Your task to perform on an android device: Is it going to rain today? Image 0: 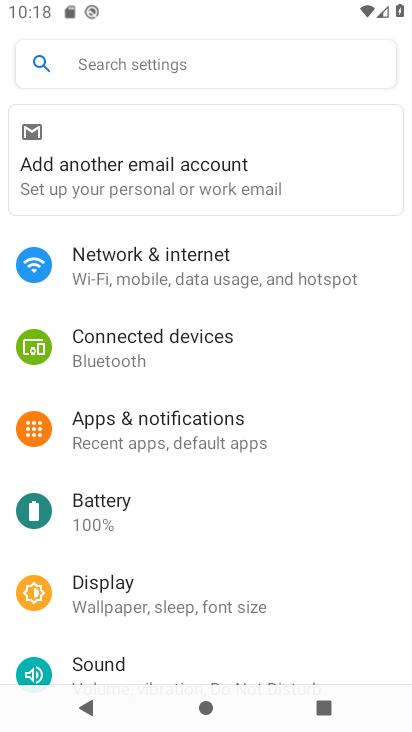
Step 0: press home button
Your task to perform on an android device: Is it going to rain today? Image 1: 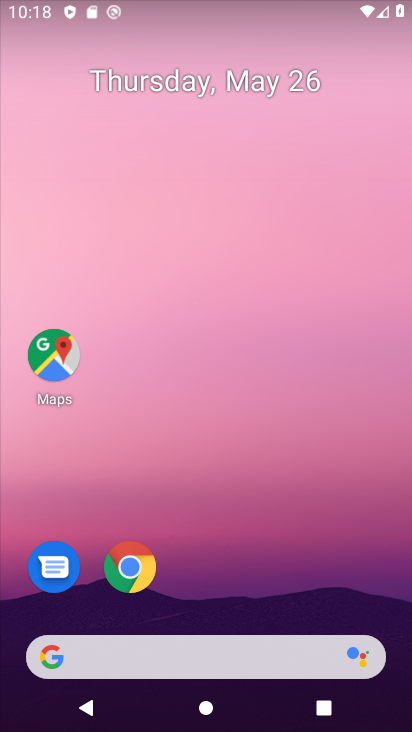
Step 1: drag from (41, 191) to (409, 221)
Your task to perform on an android device: Is it going to rain today? Image 2: 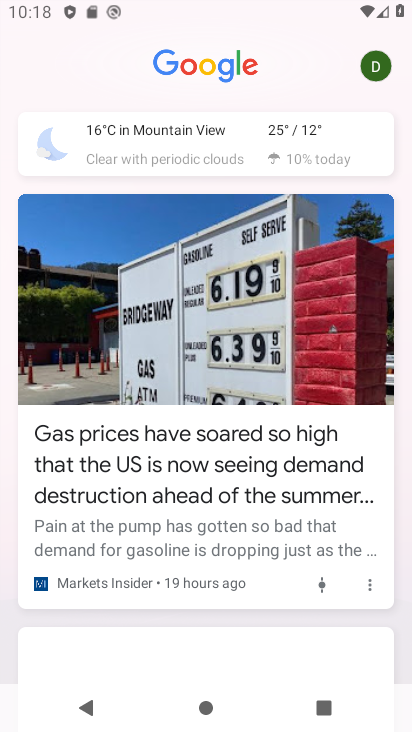
Step 2: press back button
Your task to perform on an android device: Is it going to rain today? Image 3: 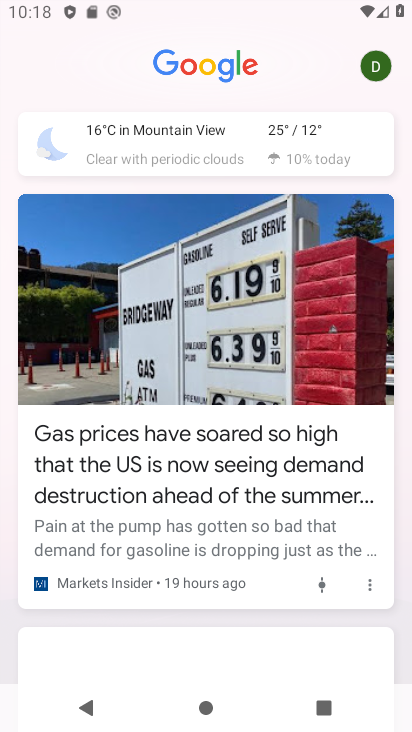
Step 3: click (238, 142)
Your task to perform on an android device: Is it going to rain today? Image 4: 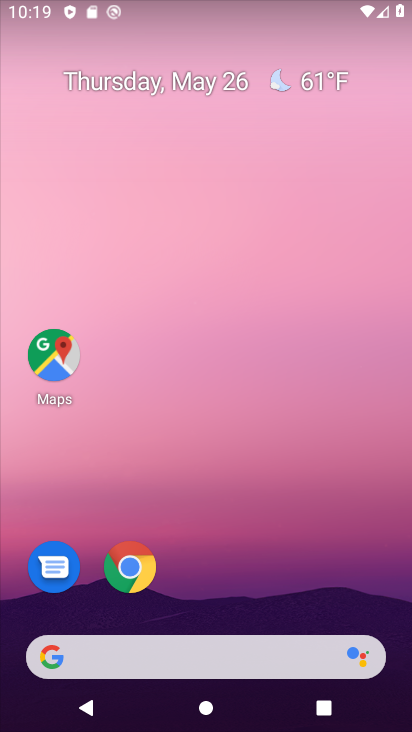
Step 4: drag from (44, 173) to (116, 171)
Your task to perform on an android device: Is it going to rain today? Image 5: 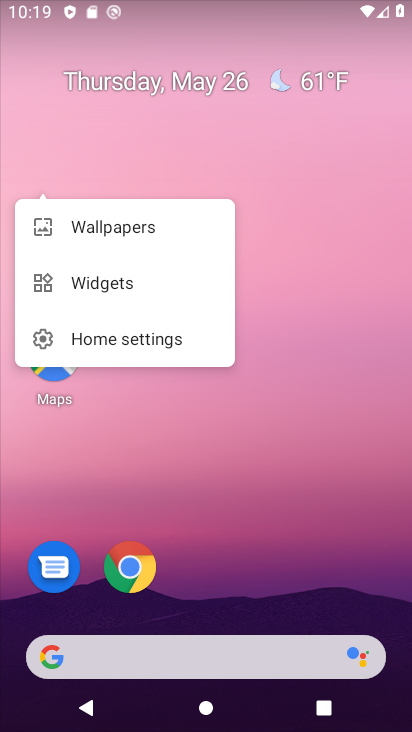
Step 5: click (314, 79)
Your task to perform on an android device: Is it going to rain today? Image 6: 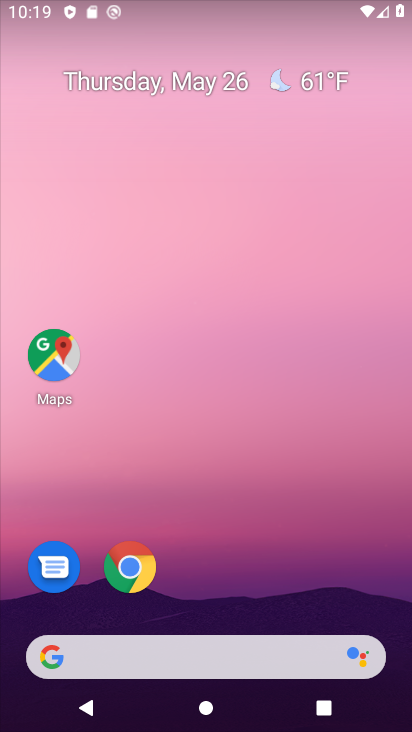
Step 6: click (314, 79)
Your task to perform on an android device: Is it going to rain today? Image 7: 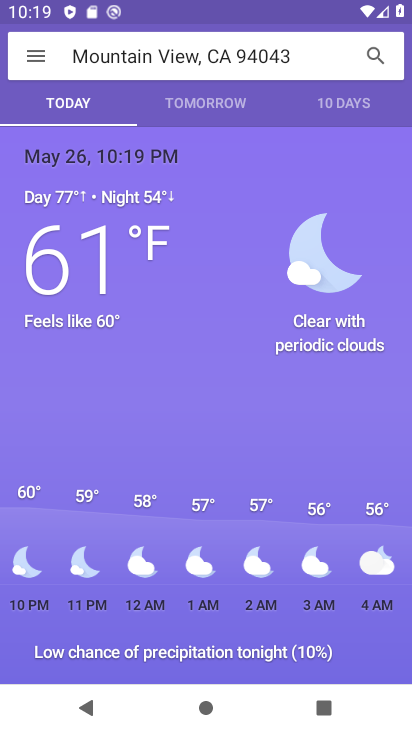
Step 7: task complete